Your task to perform on an android device: Add "jbl charge 4" to the cart on walmart.com, then select checkout. Image 0: 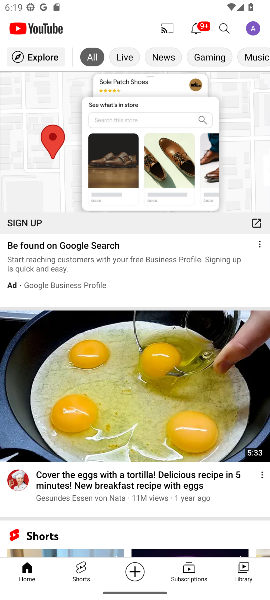
Step 0: press home button
Your task to perform on an android device: Add "jbl charge 4" to the cart on walmart.com, then select checkout. Image 1: 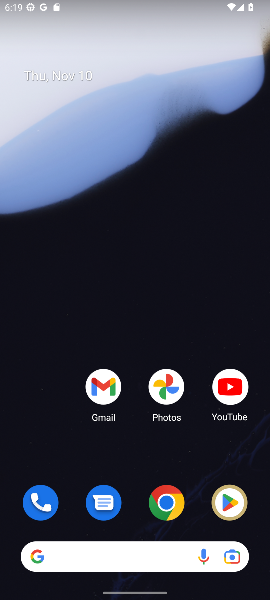
Step 1: press home button
Your task to perform on an android device: Add "jbl charge 4" to the cart on walmart.com, then select checkout. Image 2: 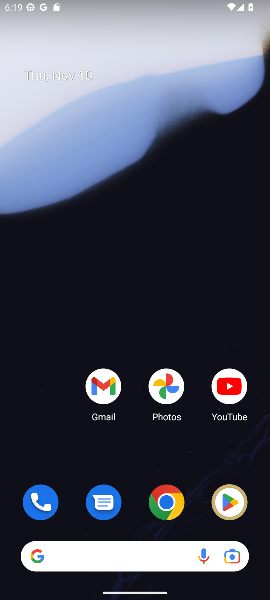
Step 2: drag from (137, 489) to (81, 21)
Your task to perform on an android device: Add "jbl charge 4" to the cart on walmart.com, then select checkout. Image 3: 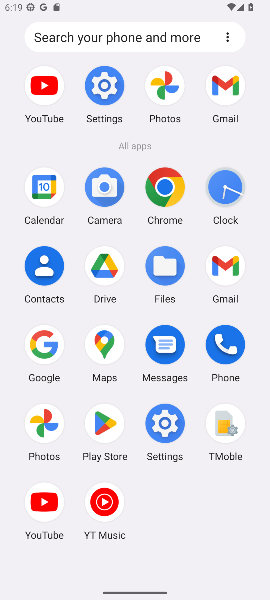
Step 3: click (40, 354)
Your task to perform on an android device: Add "jbl charge 4" to the cart on walmart.com, then select checkout. Image 4: 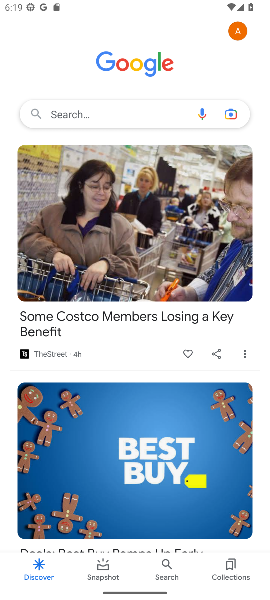
Step 4: click (126, 110)
Your task to perform on an android device: Add "jbl charge 4" to the cart on walmart.com, then select checkout. Image 5: 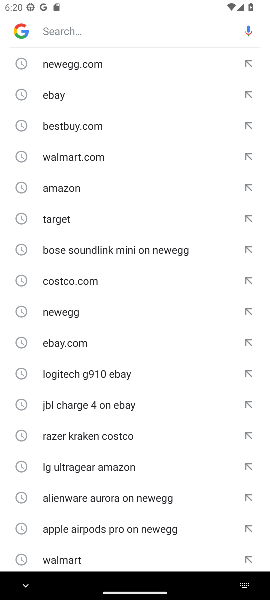
Step 5: type "walmart.com"
Your task to perform on an android device: Add "jbl charge 4" to the cart on walmart.com, then select checkout. Image 6: 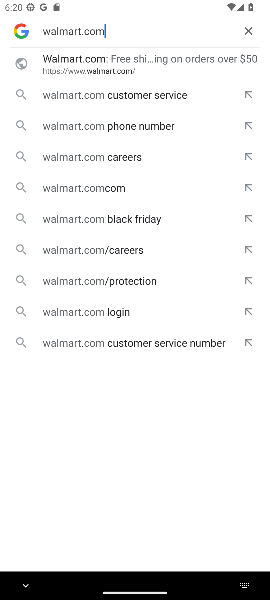
Step 6: click (83, 64)
Your task to perform on an android device: Add "jbl charge 4" to the cart on walmart.com, then select checkout. Image 7: 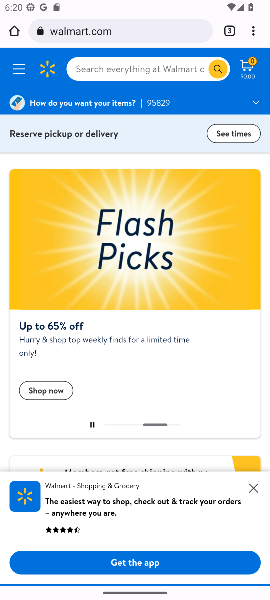
Step 7: click (152, 65)
Your task to perform on an android device: Add "jbl charge 4" to the cart on walmart.com, then select checkout. Image 8: 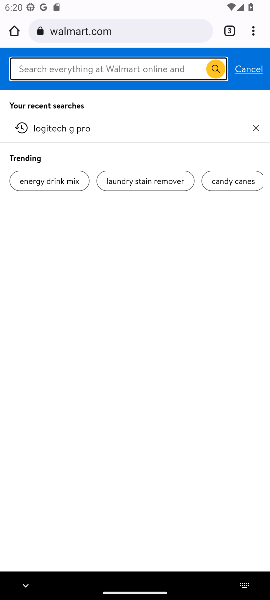
Step 8: type "jbl charge 4"
Your task to perform on an android device: Add "jbl charge 4" to the cart on walmart.com, then select checkout. Image 9: 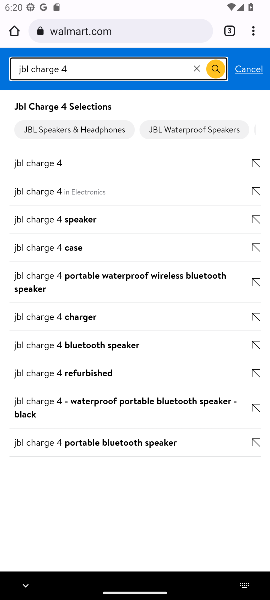
Step 9: click (44, 165)
Your task to perform on an android device: Add "jbl charge 4" to the cart on walmart.com, then select checkout. Image 10: 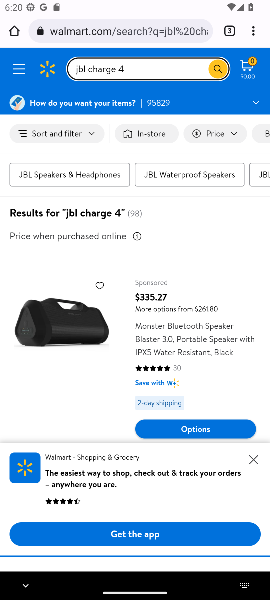
Step 10: click (252, 461)
Your task to perform on an android device: Add "jbl charge 4" to the cart on walmart.com, then select checkout. Image 11: 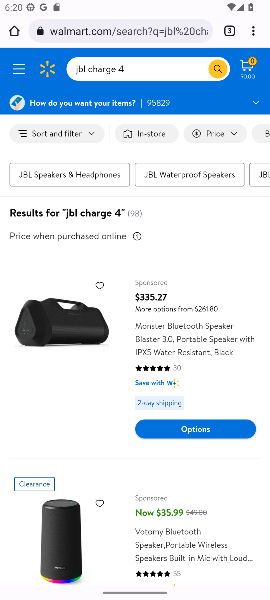
Step 11: click (196, 431)
Your task to perform on an android device: Add "jbl charge 4" to the cart on walmart.com, then select checkout. Image 12: 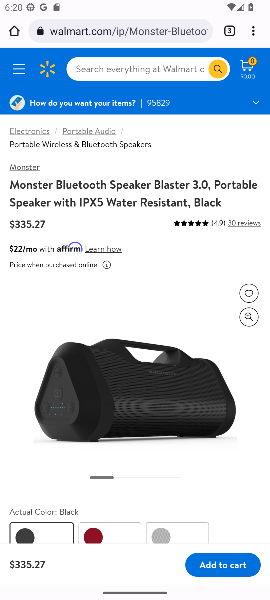
Step 12: click (219, 567)
Your task to perform on an android device: Add "jbl charge 4" to the cart on walmart.com, then select checkout. Image 13: 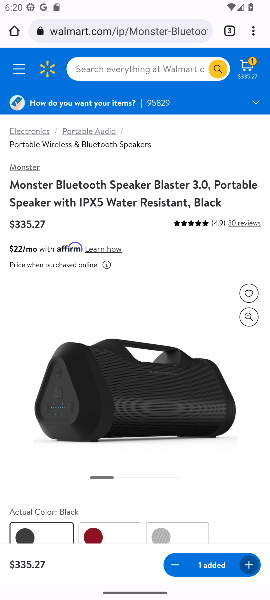
Step 13: click (248, 69)
Your task to perform on an android device: Add "jbl charge 4" to the cart on walmart.com, then select checkout. Image 14: 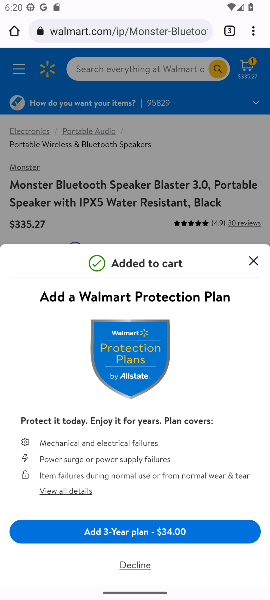
Step 14: click (130, 566)
Your task to perform on an android device: Add "jbl charge 4" to the cart on walmart.com, then select checkout. Image 15: 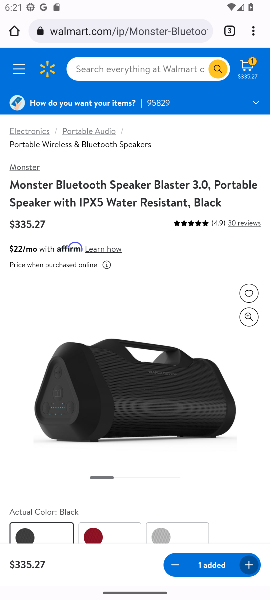
Step 15: click (250, 72)
Your task to perform on an android device: Add "jbl charge 4" to the cart on walmart.com, then select checkout. Image 16: 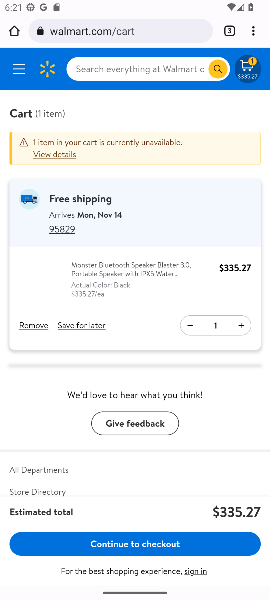
Step 16: click (143, 550)
Your task to perform on an android device: Add "jbl charge 4" to the cart on walmart.com, then select checkout. Image 17: 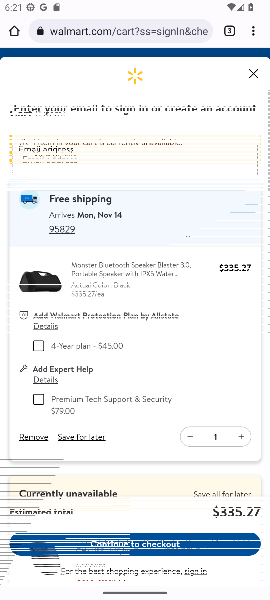
Step 17: click (147, 541)
Your task to perform on an android device: Add "jbl charge 4" to the cart on walmart.com, then select checkout. Image 18: 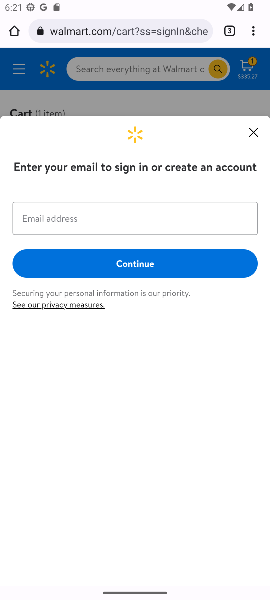
Step 18: task complete